Your task to perform on an android device: Open Google Maps Image 0: 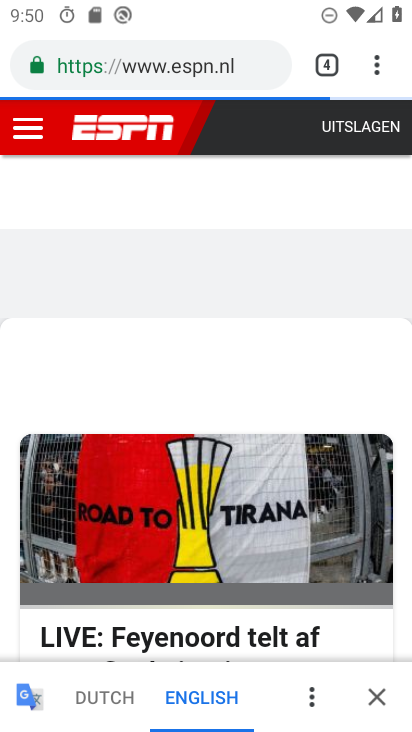
Step 0: press home button
Your task to perform on an android device: Open Google Maps Image 1: 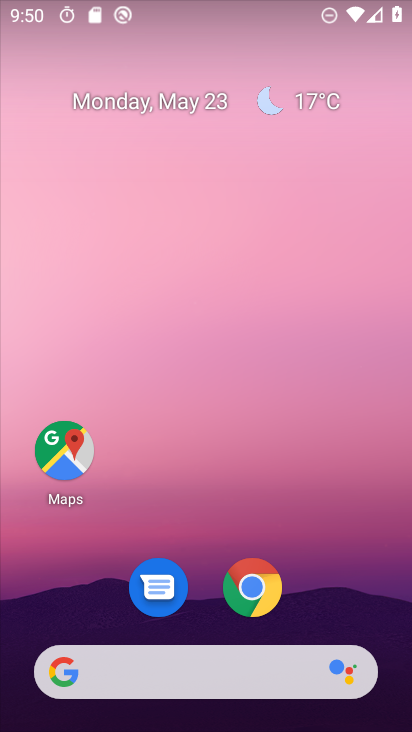
Step 1: click (58, 452)
Your task to perform on an android device: Open Google Maps Image 2: 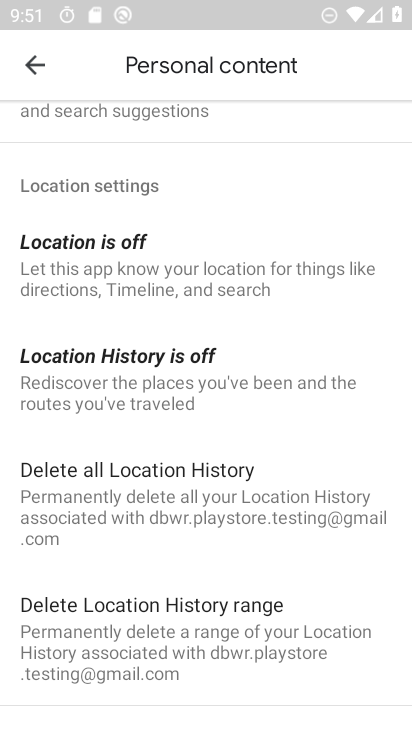
Step 2: click (32, 54)
Your task to perform on an android device: Open Google Maps Image 3: 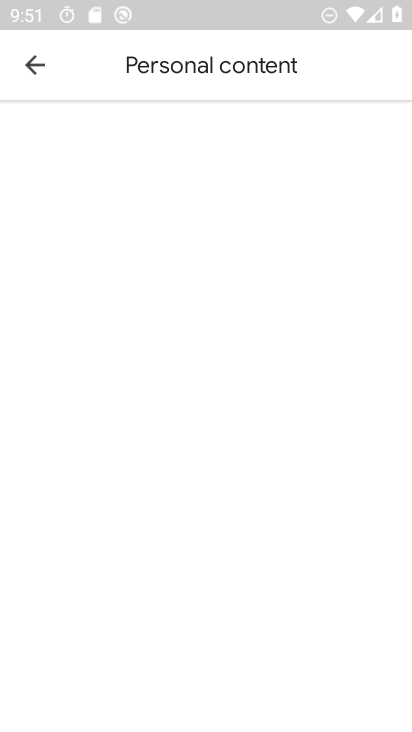
Step 3: click (32, 54)
Your task to perform on an android device: Open Google Maps Image 4: 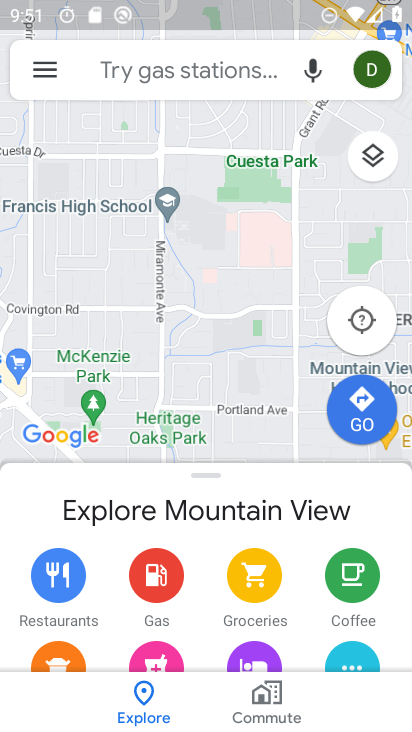
Step 4: task complete